Your task to perform on an android device: Open Google Chrome Image 0: 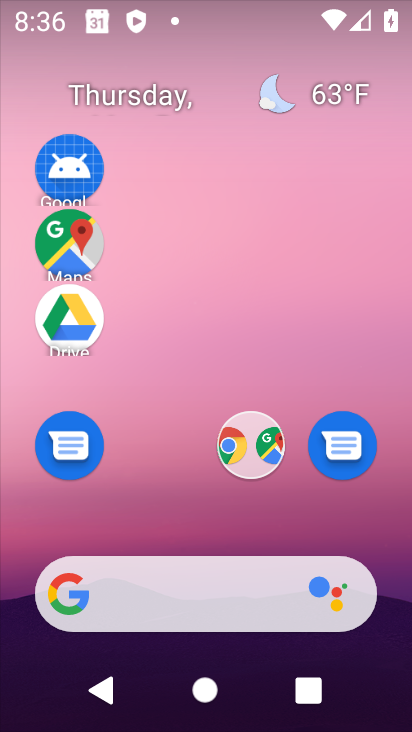
Step 0: drag from (208, 530) to (169, 142)
Your task to perform on an android device: Open Google Chrome Image 1: 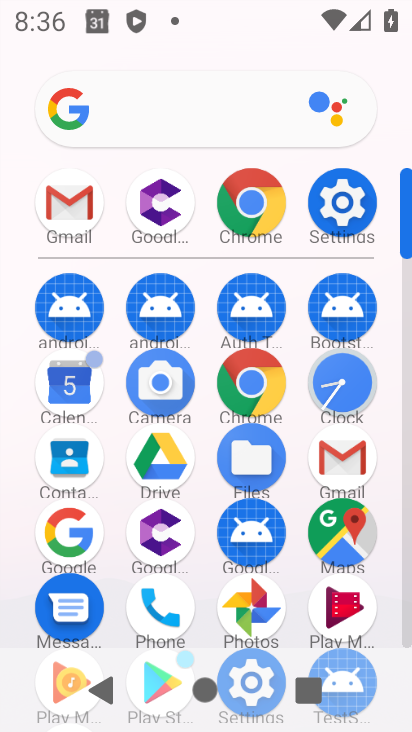
Step 1: click (237, 181)
Your task to perform on an android device: Open Google Chrome Image 2: 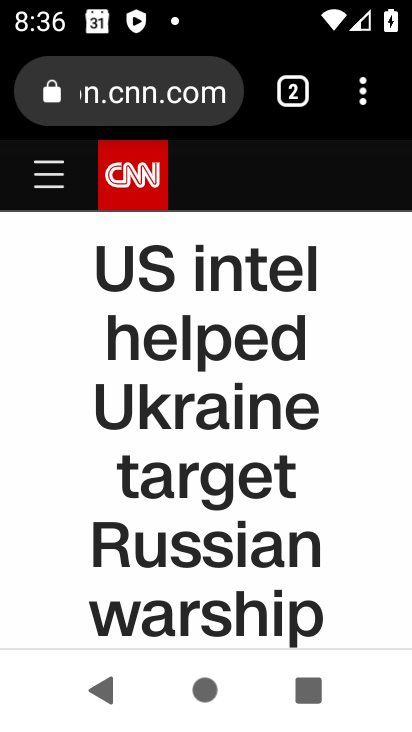
Step 2: task complete